Your task to perform on an android device: set default search engine in the chrome app Image 0: 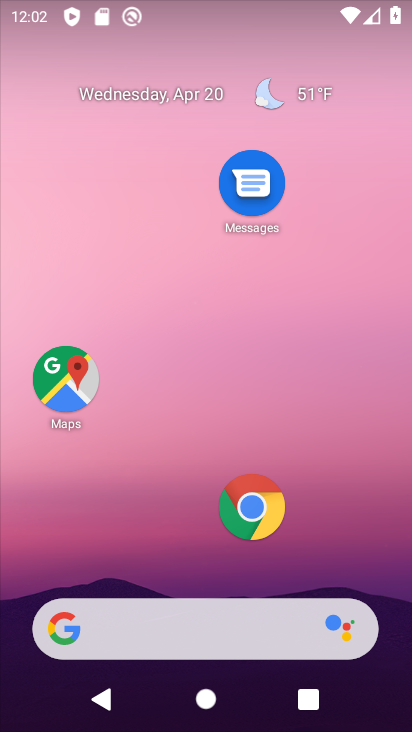
Step 0: click (255, 505)
Your task to perform on an android device: set default search engine in the chrome app Image 1: 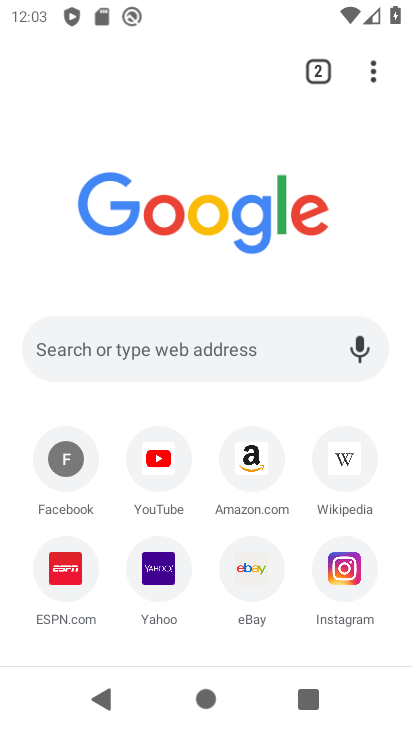
Step 1: click (375, 70)
Your task to perform on an android device: set default search engine in the chrome app Image 2: 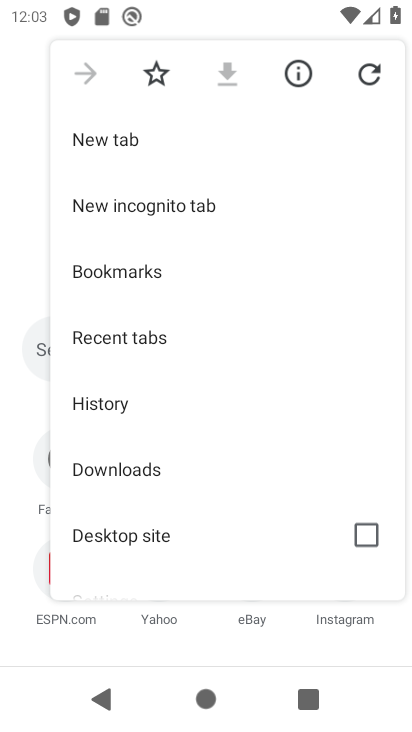
Step 2: drag from (190, 408) to (292, 260)
Your task to perform on an android device: set default search engine in the chrome app Image 3: 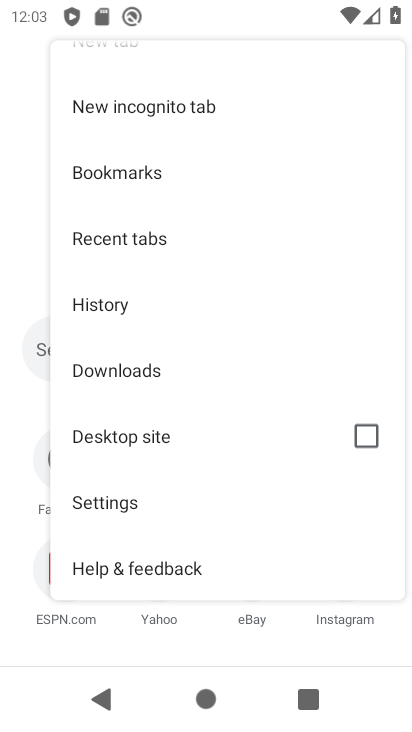
Step 3: click (113, 498)
Your task to perform on an android device: set default search engine in the chrome app Image 4: 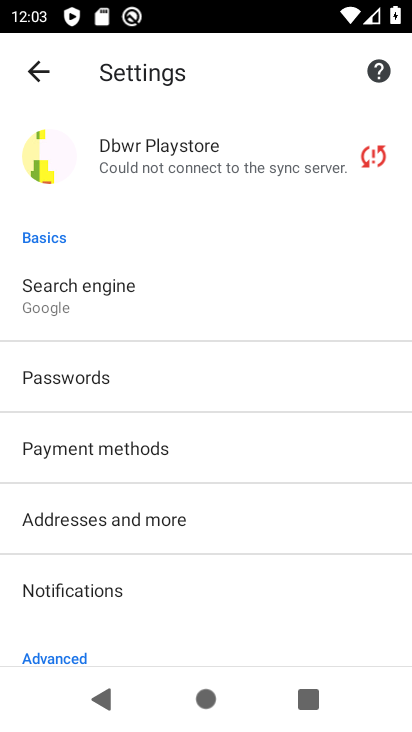
Step 4: click (113, 289)
Your task to perform on an android device: set default search engine in the chrome app Image 5: 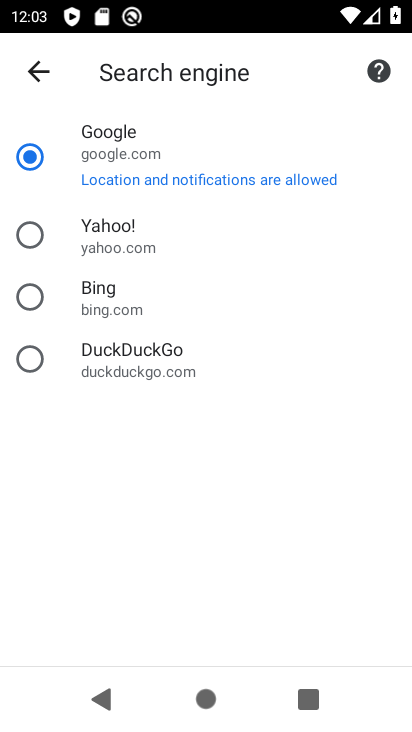
Step 5: click (139, 190)
Your task to perform on an android device: set default search engine in the chrome app Image 6: 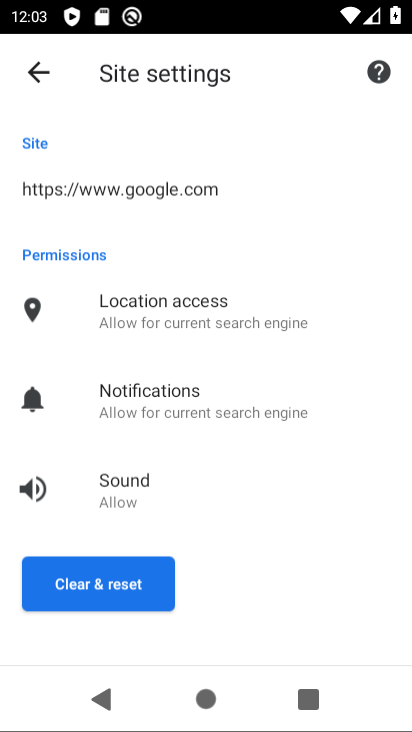
Step 6: click (111, 261)
Your task to perform on an android device: set default search engine in the chrome app Image 7: 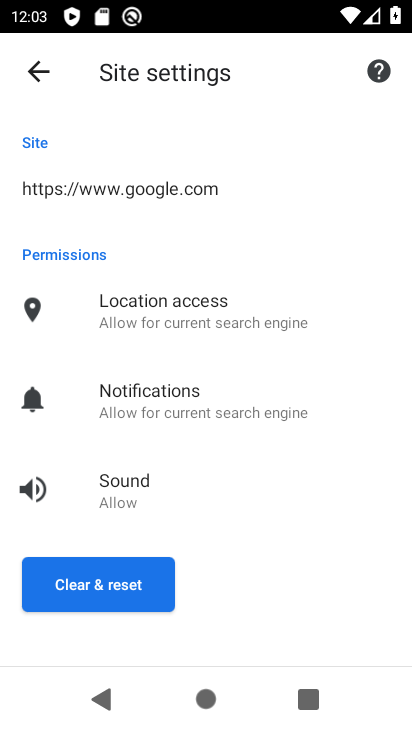
Step 7: task complete